Your task to perform on an android device: turn off sleep mode Image 0: 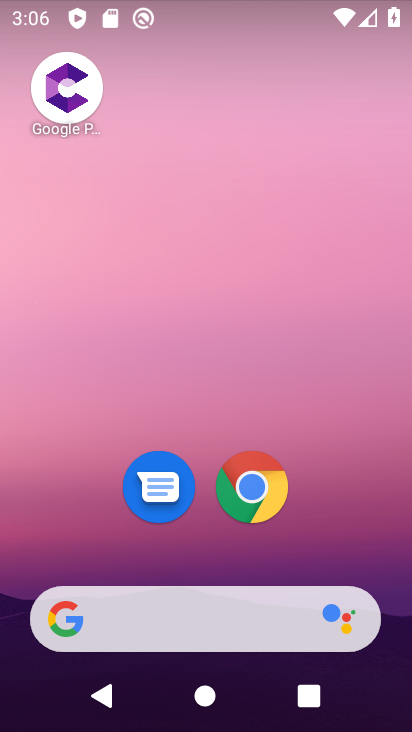
Step 0: drag from (226, 536) to (301, 106)
Your task to perform on an android device: turn off sleep mode Image 1: 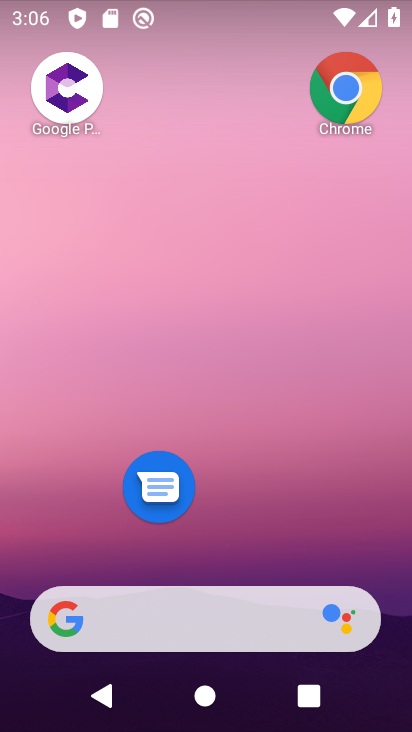
Step 1: drag from (280, 542) to (270, 112)
Your task to perform on an android device: turn off sleep mode Image 2: 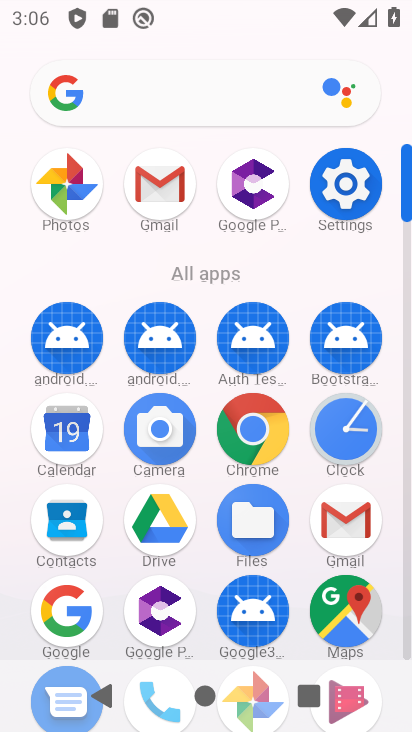
Step 2: click (348, 185)
Your task to perform on an android device: turn off sleep mode Image 3: 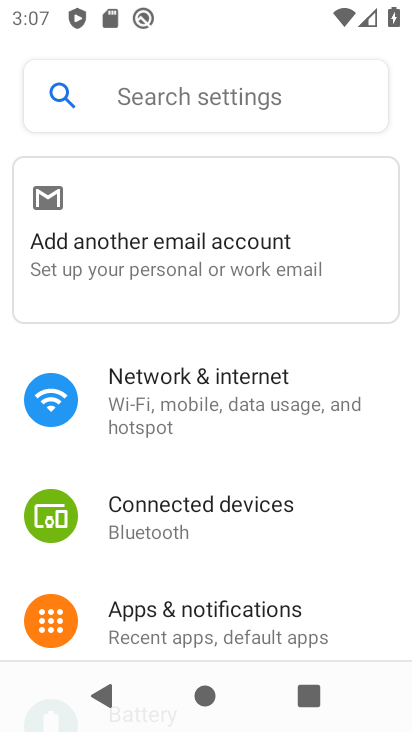
Step 3: drag from (191, 482) to (238, 323)
Your task to perform on an android device: turn off sleep mode Image 4: 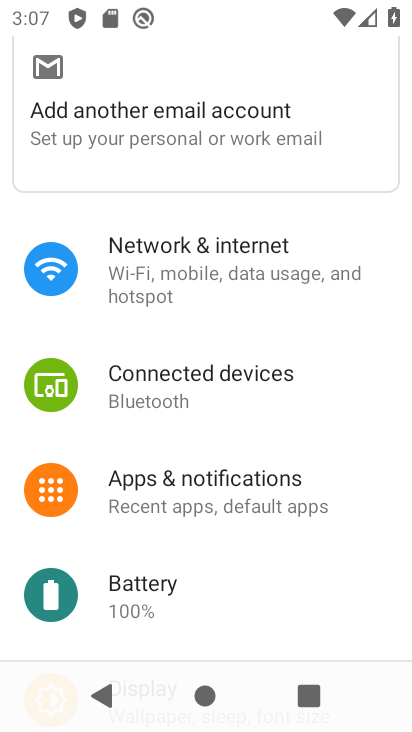
Step 4: drag from (220, 530) to (233, 446)
Your task to perform on an android device: turn off sleep mode Image 5: 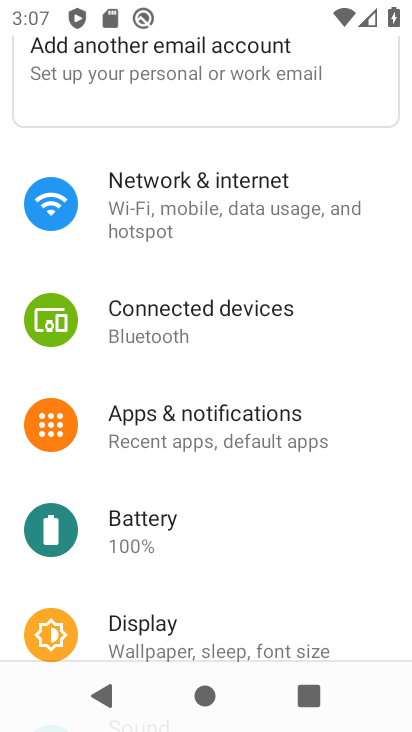
Step 5: drag from (218, 562) to (233, 445)
Your task to perform on an android device: turn off sleep mode Image 6: 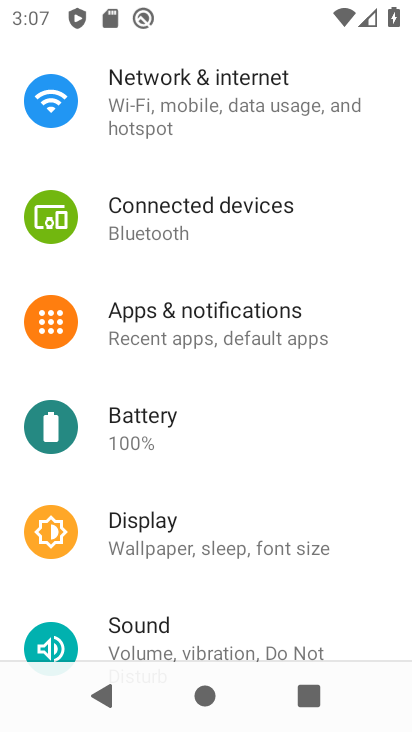
Step 6: click (201, 548)
Your task to perform on an android device: turn off sleep mode Image 7: 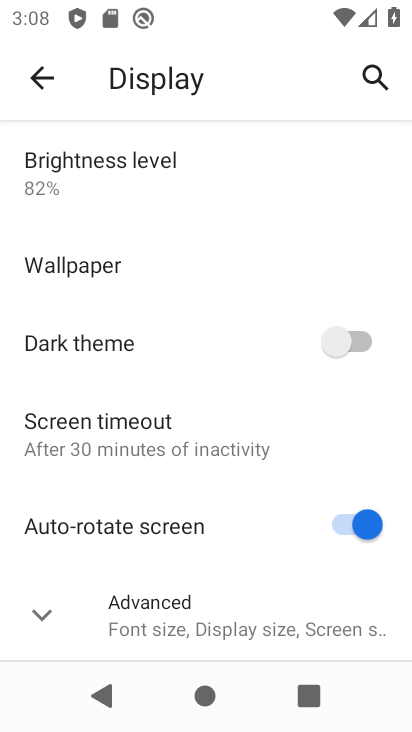
Step 7: drag from (184, 523) to (233, 312)
Your task to perform on an android device: turn off sleep mode Image 8: 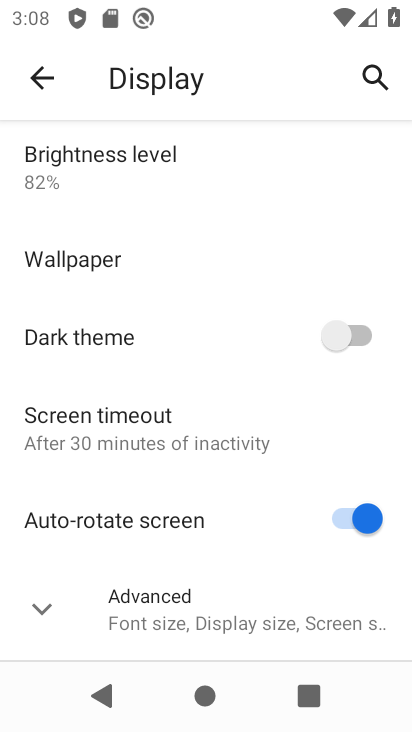
Step 8: click (159, 595)
Your task to perform on an android device: turn off sleep mode Image 9: 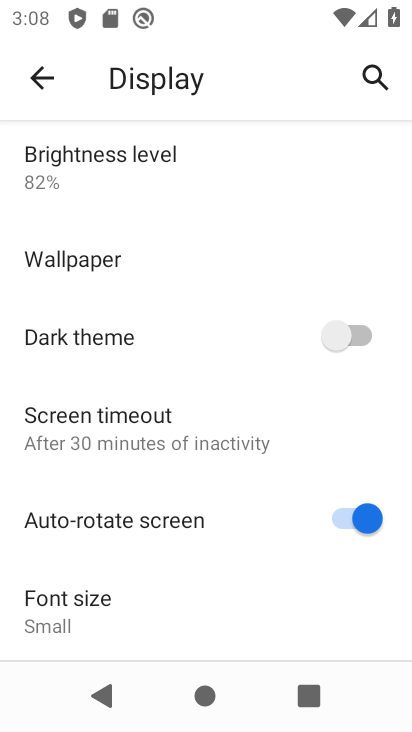
Step 9: task complete